Your task to perform on an android device: Go to Yahoo.com Image 0: 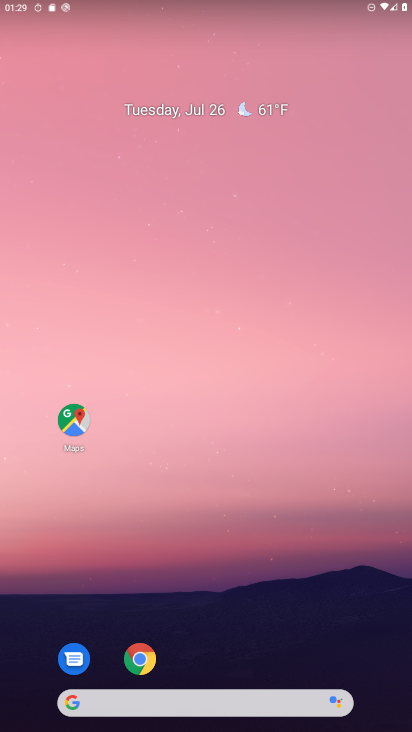
Step 0: click (101, 685)
Your task to perform on an android device: Go to Yahoo.com Image 1: 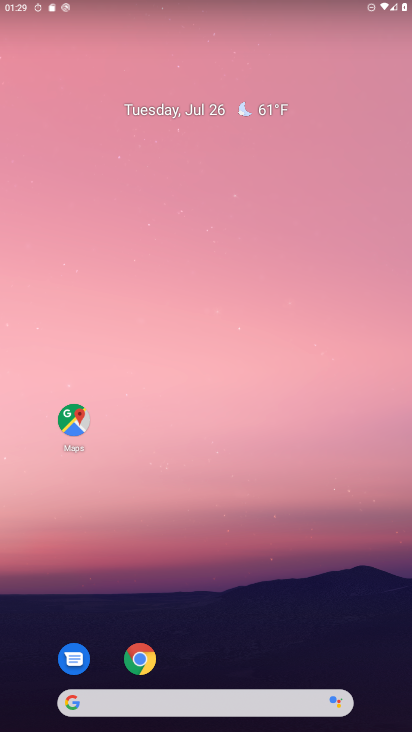
Step 1: click (107, 704)
Your task to perform on an android device: Go to Yahoo.com Image 2: 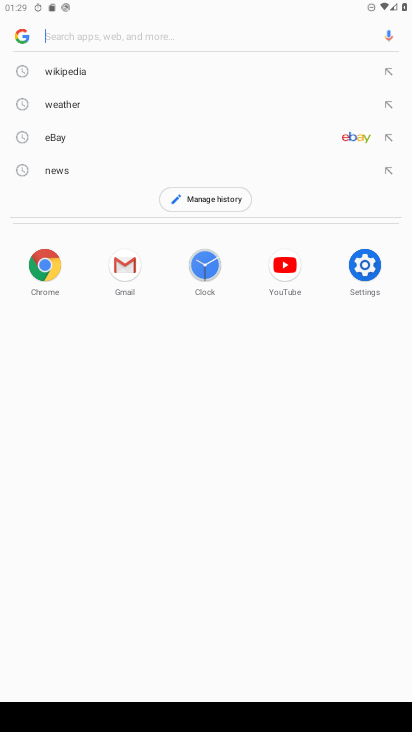
Step 2: type " Yahoo.com"
Your task to perform on an android device: Go to Yahoo.com Image 3: 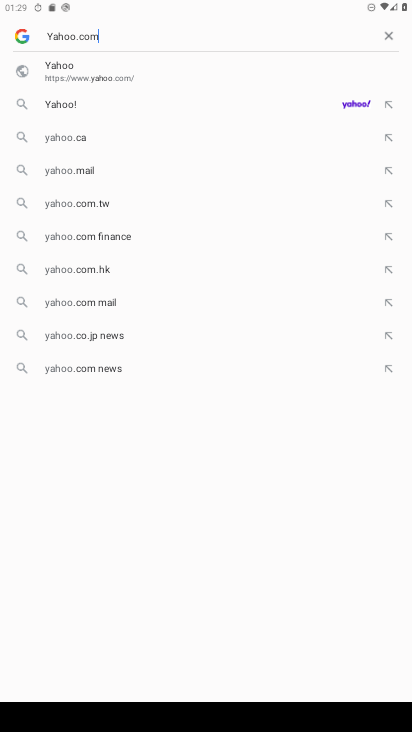
Step 3: type ""
Your task to perform on an android device: Go to Yahoo.com Image 4: 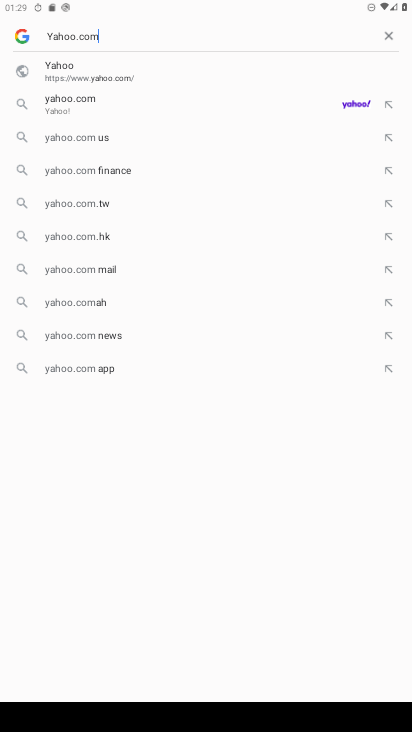
Step 4: click (56, 96)
Your task to perform on an android device: Go to Yahoo.com Image 5: 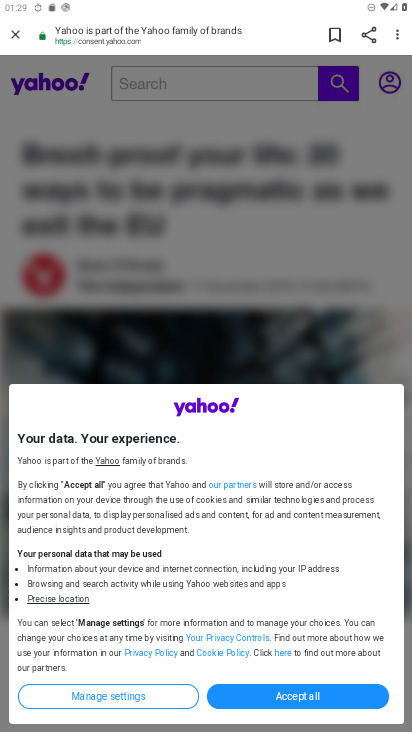
Step 5: task complete